Your task to perform on an android device: open app "Contacts" (install if not already installed) Image 0: 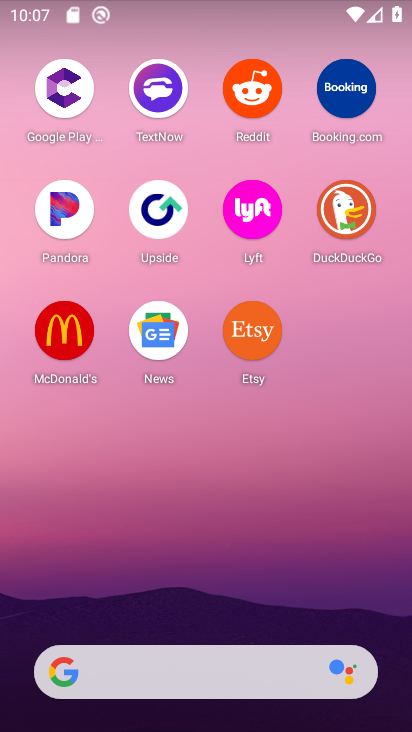
Step 0: drag from (194, 596) to (182, 3)
Your task to perform on an android device: open app "Contacts" (install if not already installed) Image 1: 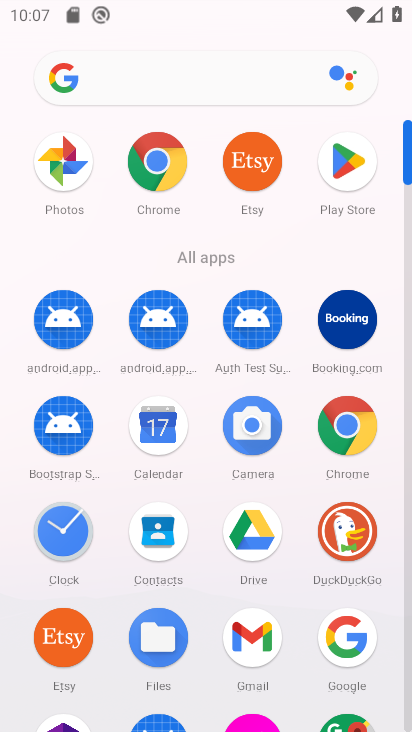
Step 1: click (347, 161)
Your task to perform on an android device: open app "Contacts" (install if not already installed) Image 2: 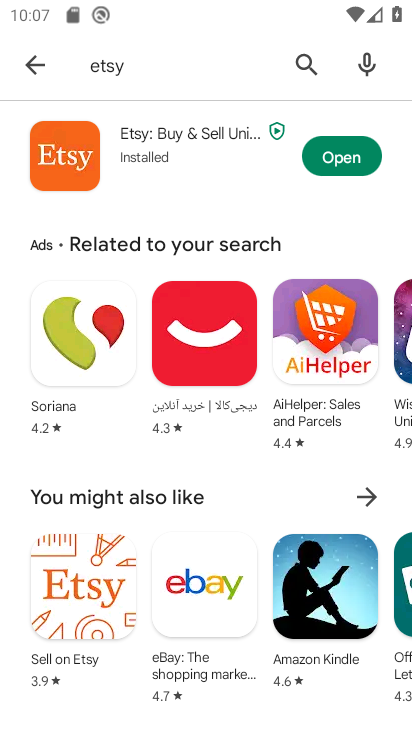
Step 2: click (38, 74)
Your task to perform on an android device: open app "Contacts" (install if not already installed) Image 3: 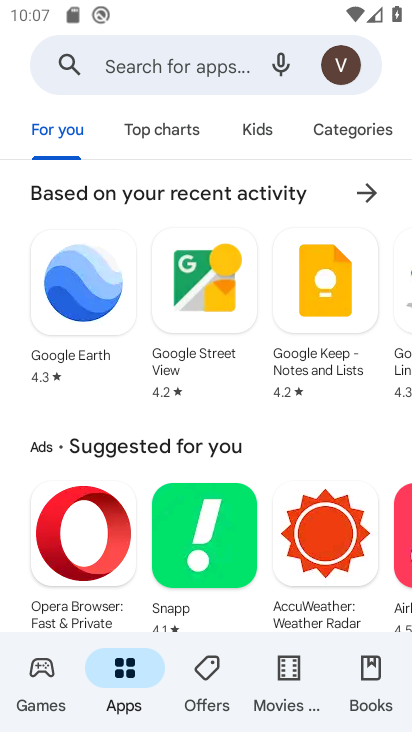
Step 3: click (160, 72)
Your task to perform on an android device: open app "Contacts" (install if not already installed) Image 4: 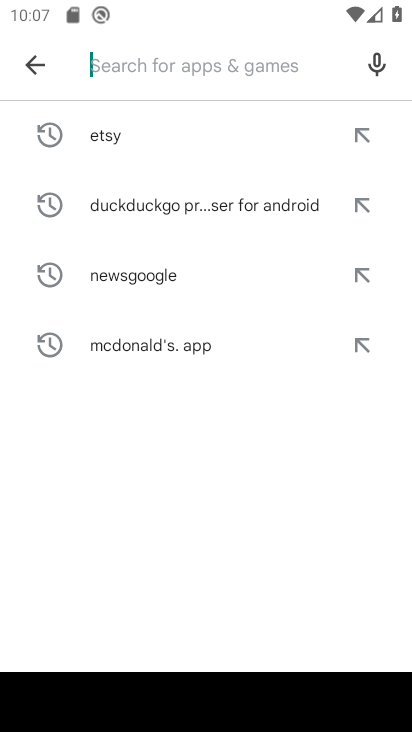
Step 4: type "Contacts"
Your task to perform on an android device: open app "Contacts" (install if not already installed) Image 5: 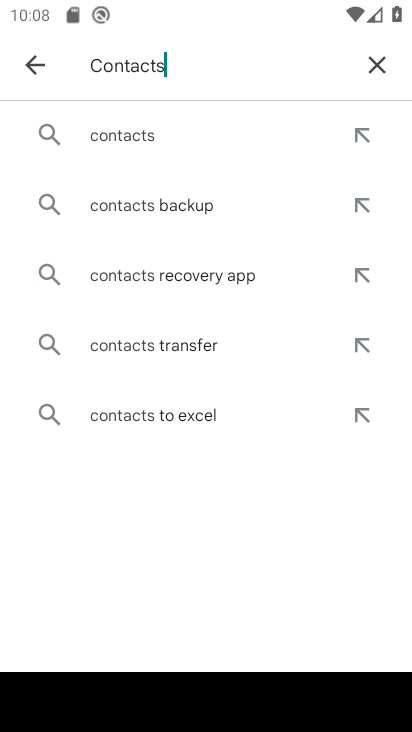
Step 5: click (145, 133)
Your task to perform on an android device: open app "Contacts" (install if not already installed) Image 6: 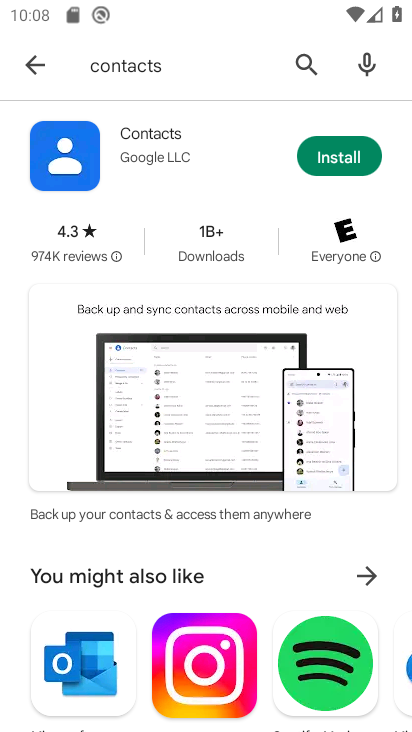
Step 6: click (323, 157)
Your task to perform on an android device: open app "Contacts" (install if not already installed) Image 7: 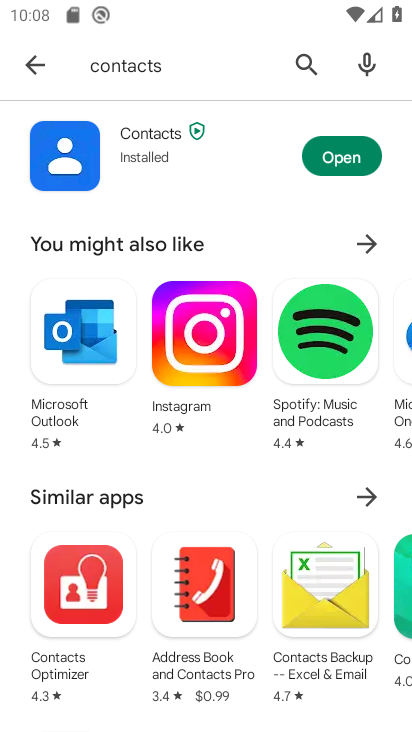
Step 7: click (323, 157)
Your task to perform on an android device: open app "Contacts" (install if not already installed) Image 8: 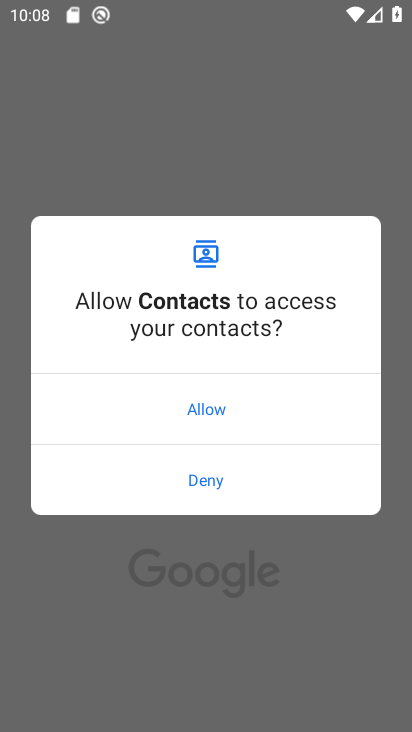
Step 8: click (258, 401)
Your task to perform on an android device: open app "Contacts" (install if not already installed) Image 9: 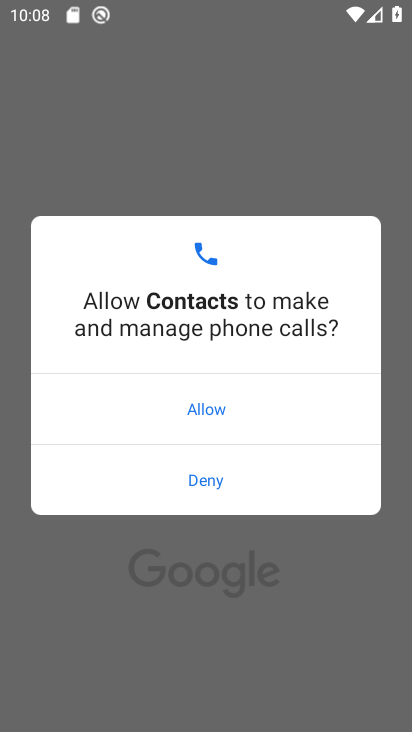
Step 9: click (192, 389)
Your task to perform on an android device: open app "Contacts" (install if not already installed) Image 10: 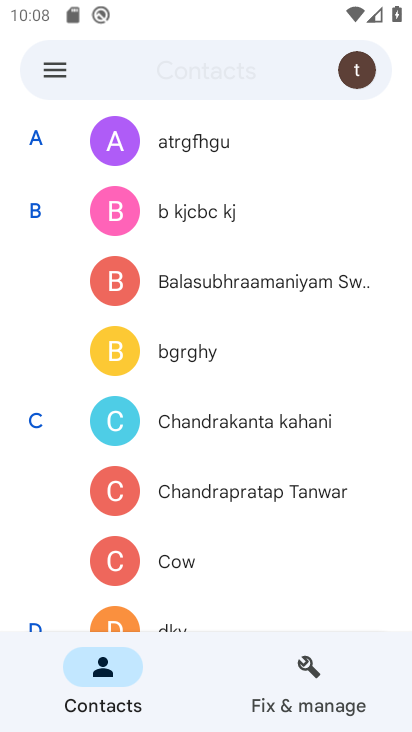
Step 10: task complete